Your task to perform on an android device: clear all cookies in the chrome app Image 0: 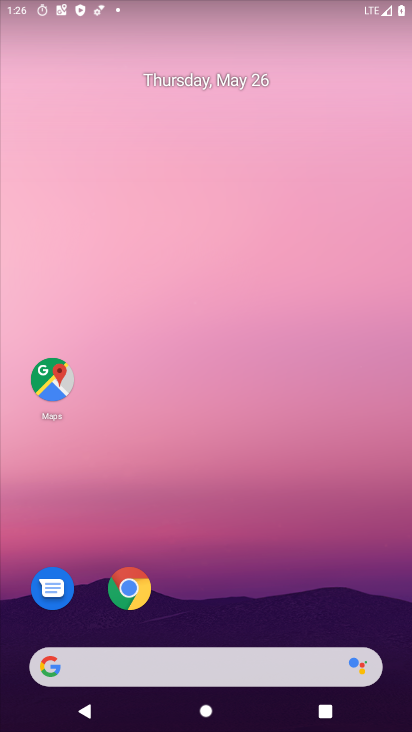
Step 0: click (135, 578)
Your task to perform on an android device: clear all cookies in the chrome app Image 1: 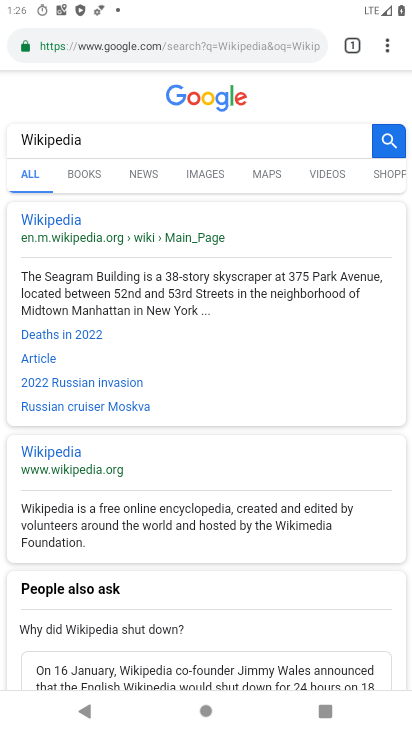
Step 1: click (387, 37)
Your task to perform on an android device: clear all cookies in the chrome app Image 2: 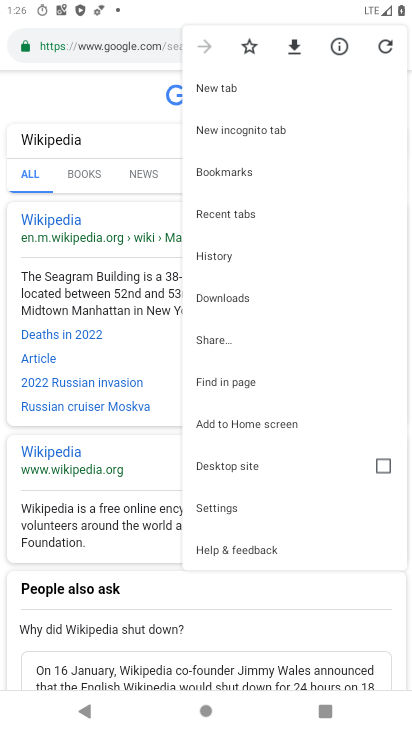
Step 2: click (213, 250)
Your task to perform on an android device: clear all cookies in the chrome app Image 3: 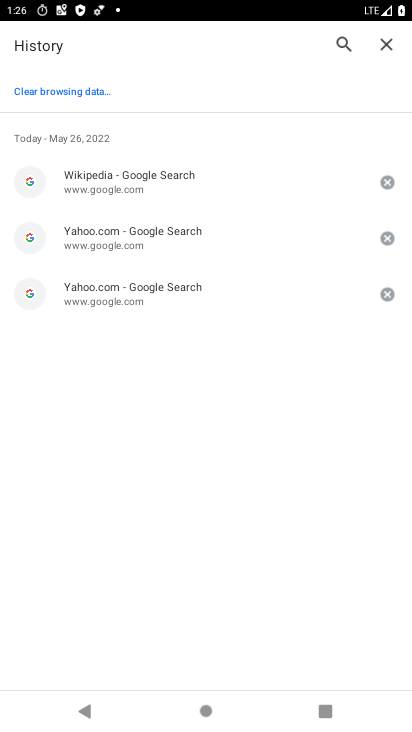
Step 3: click (54, 84)
Your task to perform on an android device: clear all cookies in the chrome app Image 4: 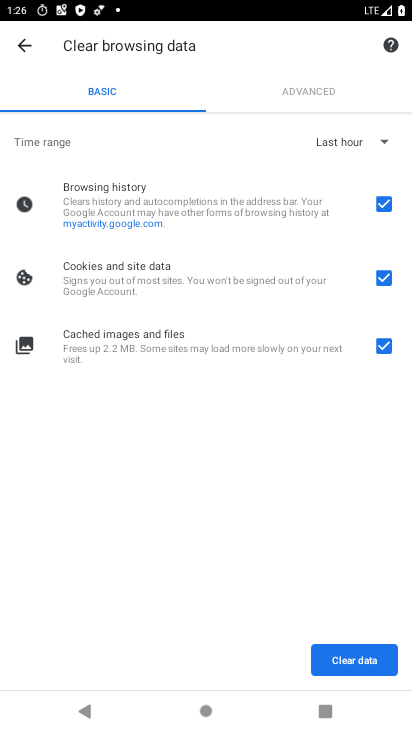
Step 4: click (353, 649)
Your task to perform on an android device: clear all cookies in the chrome app Image 5: 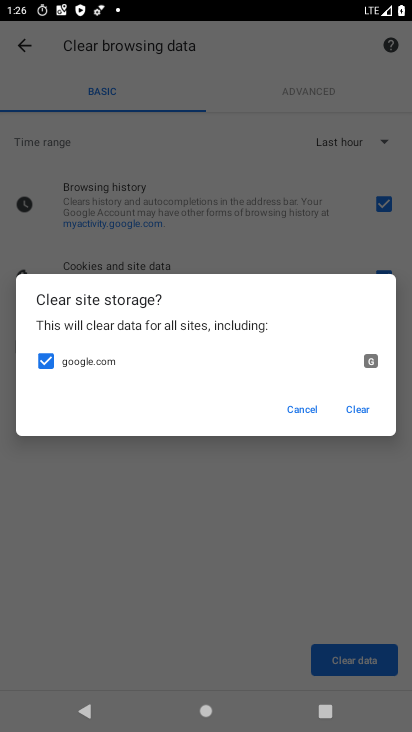
Step 5: click (353, 406)
Your task to perform on an android device: clear all cookies in the chrome app Image 6: 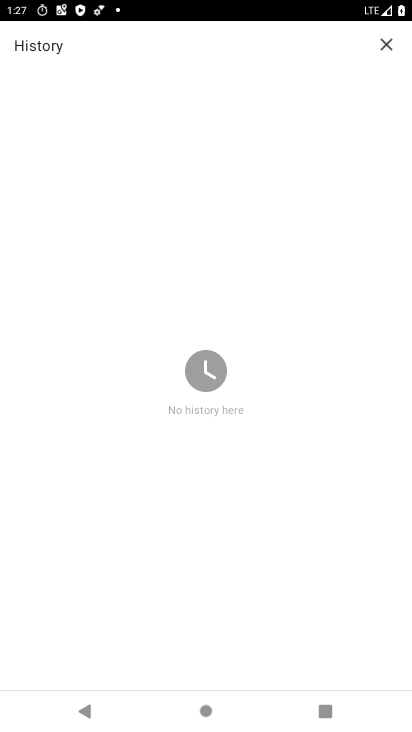
Step 6: task complete